Your task to perform on an android device: turn on translation in the chrome app Image 0: 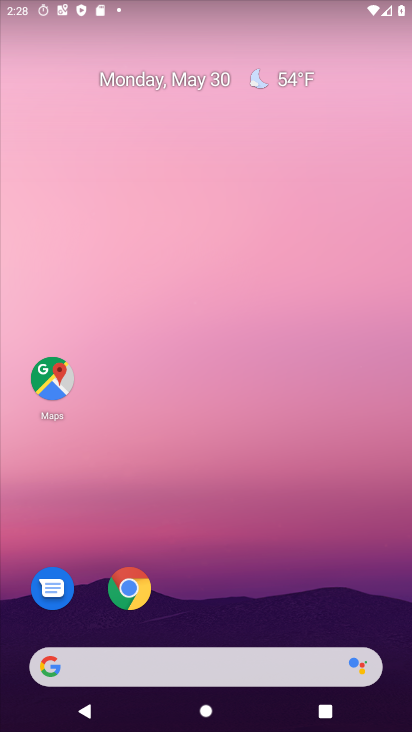
Step 0: click (138, 584)
Your task to perform on an android device: turn on translation in the chrome app Image 1: 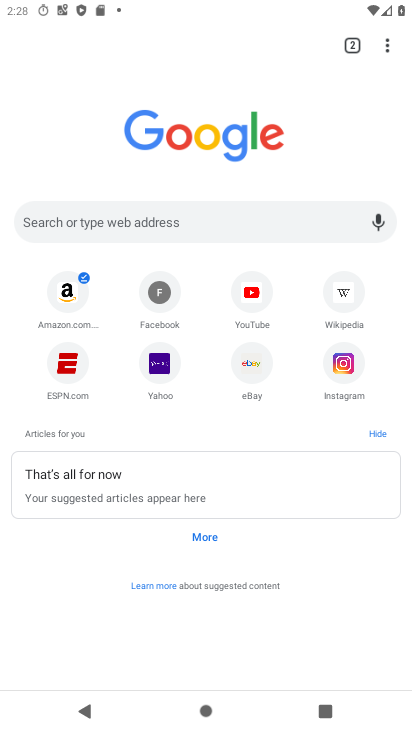
Step 1: click (380, 44)
Your task to perform on an android device: turn on translation in the chrome app Image 2: 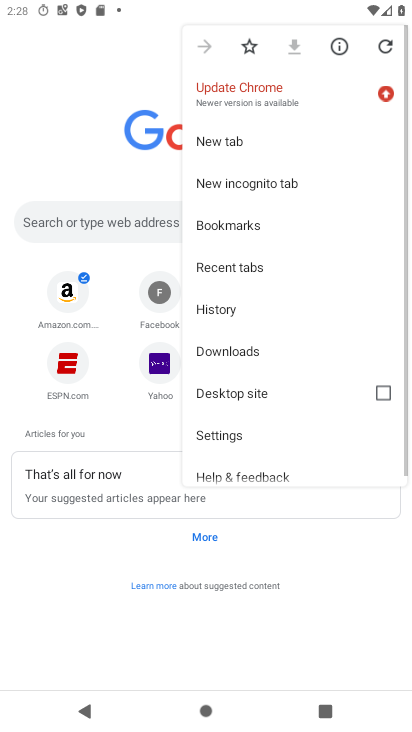
Step 2: click (252, 430)
Your task to perform on an android device: turn on translation in the chrome app Image 3: 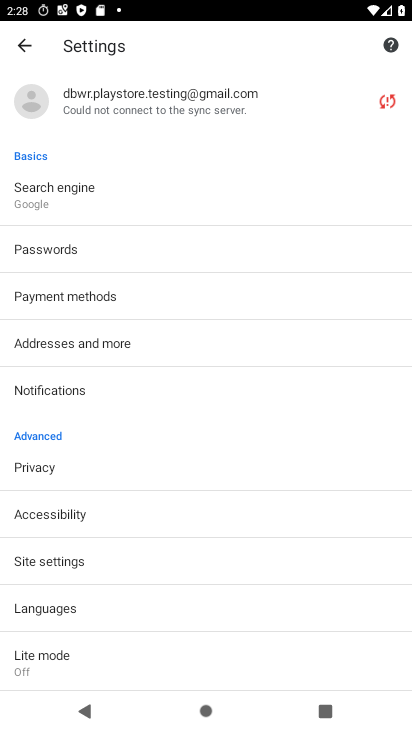
Step 3: click (82, 607)
Your task to perform on an android device: turn on translation in the chrome app Image 4: 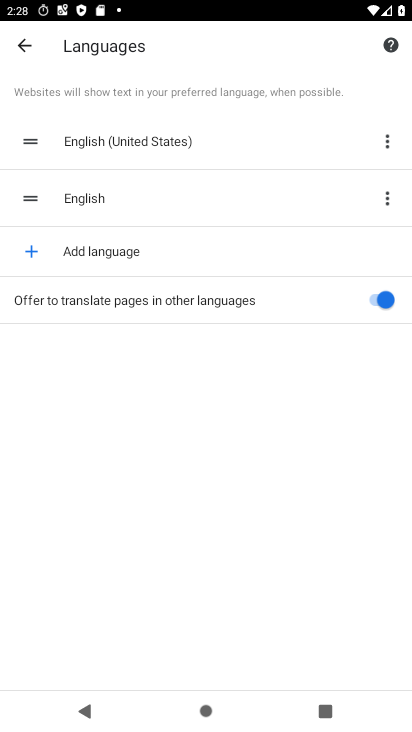
Step 4: task complete